Your task to perform on an android device: empty trash in google photos Image 0: 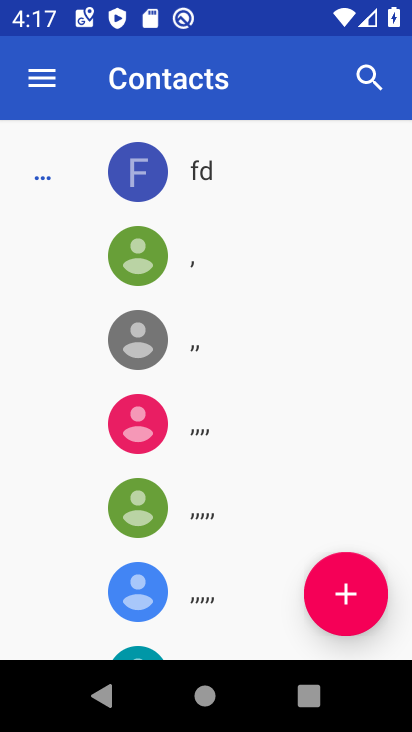
Step 0: press home button
Your task to perform on an android device: empty trash in google photos Image 1: 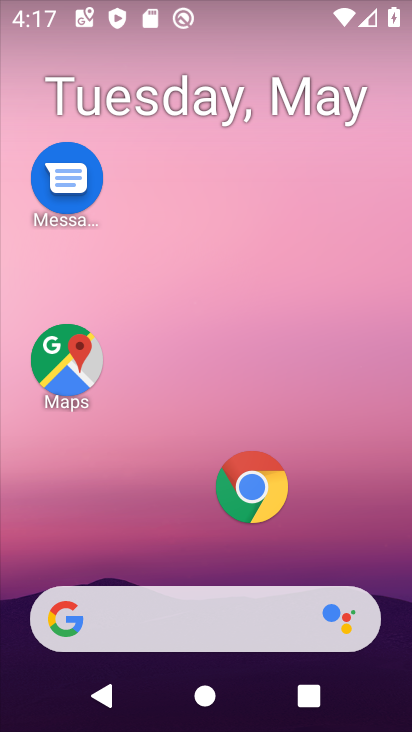
Step 1: drag from (250, 559) to (307, 3)
Your task to perform on an android device: empty trash in google photos Image 2: 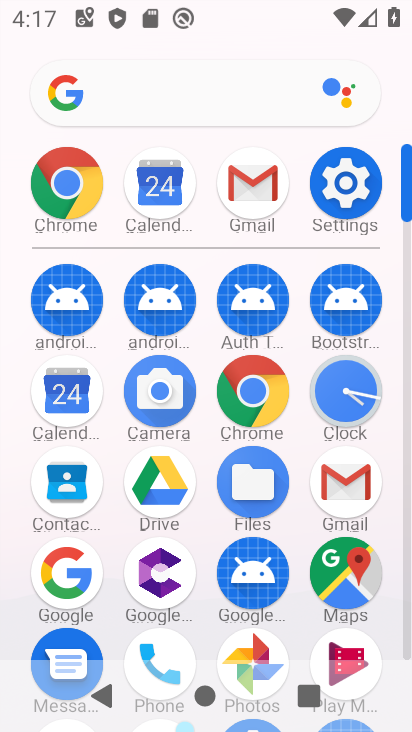
Step 2: click (268, 650)
Your task to perform on an android device: empty trash in google photos Image 3: 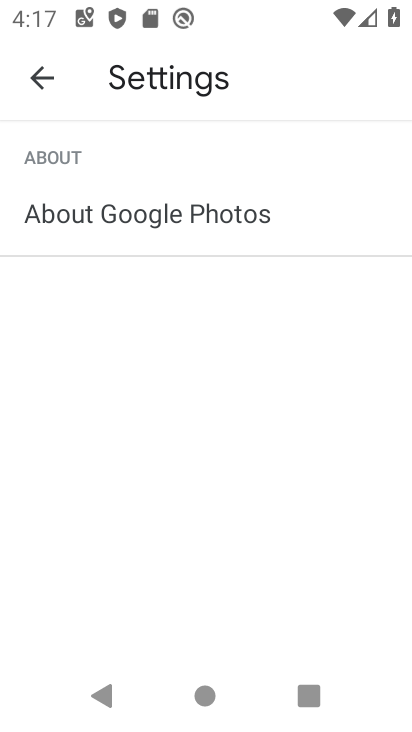
Step 3: click (46, 76)
Your task to perform on an android device: empty trash in google photos Image 4: 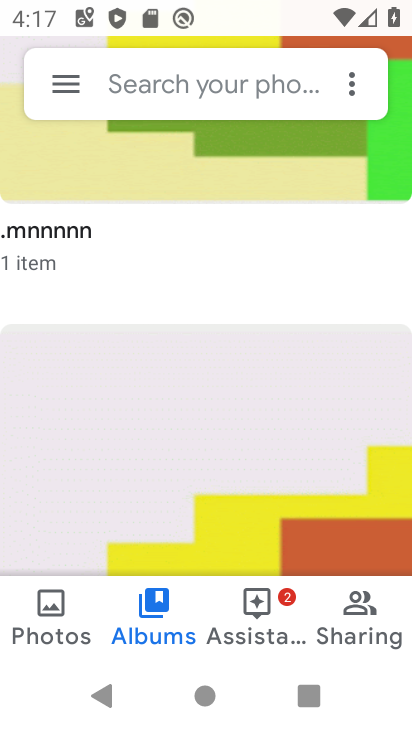
Step 4: click (75, 83)
Your task to perform on an android device: empty trash in google photos Image 5: 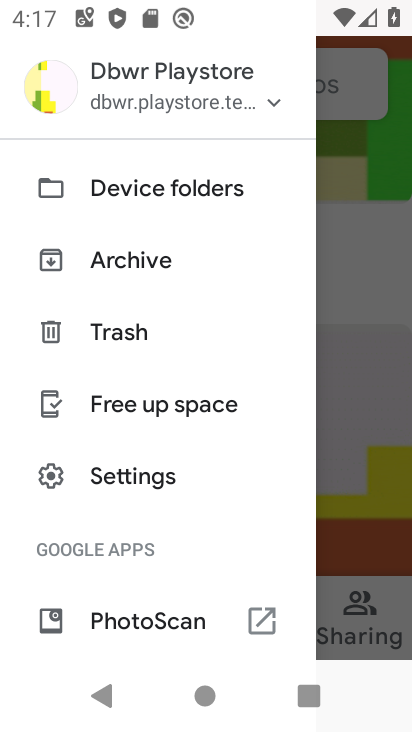
Step 5: click (110, 315)
Your task to perform on an android device: empty trash in google photos Image 6: 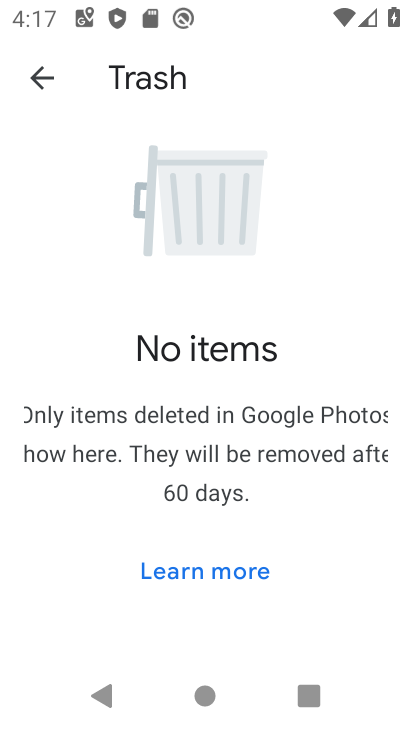
Step 6: task complete